Your task to perform on an android device: change your default location settings in chrome Image 0: 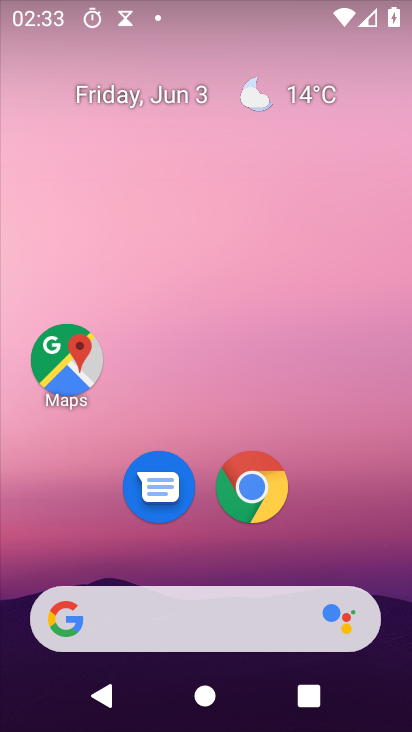
Step 0: click (261, 488)
Your task to perform on an android device: change your default location settings in chrome Image 1: 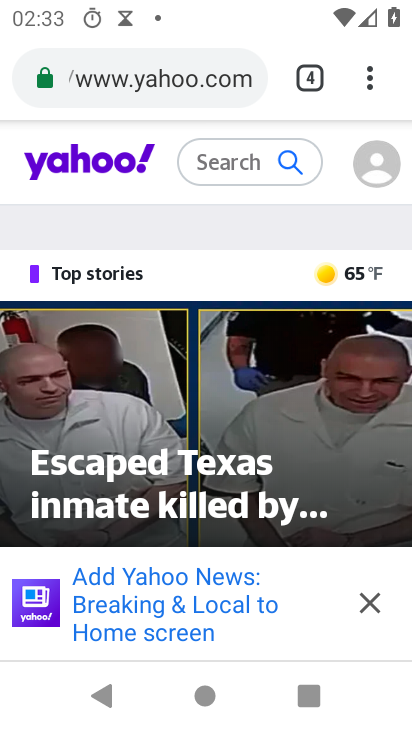
Step 1: click (382, 68)
Your task to perform on an android device: change your default location settings in chrome Image 2: 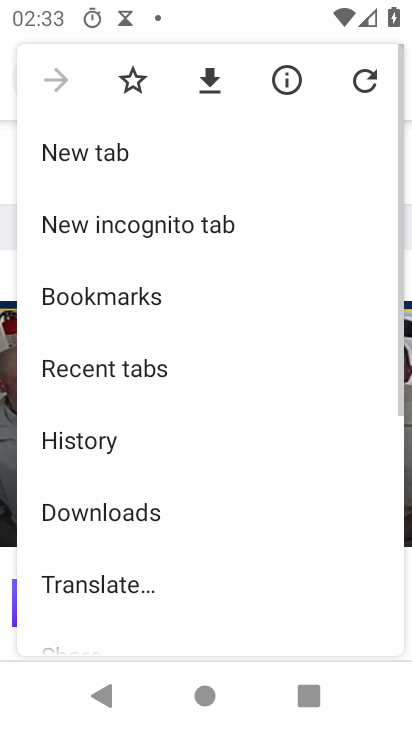
Step 2: drag from (213, 535) to (198, 9)
Your task to perform on an android device: change your default location settings in chrome Image 3: 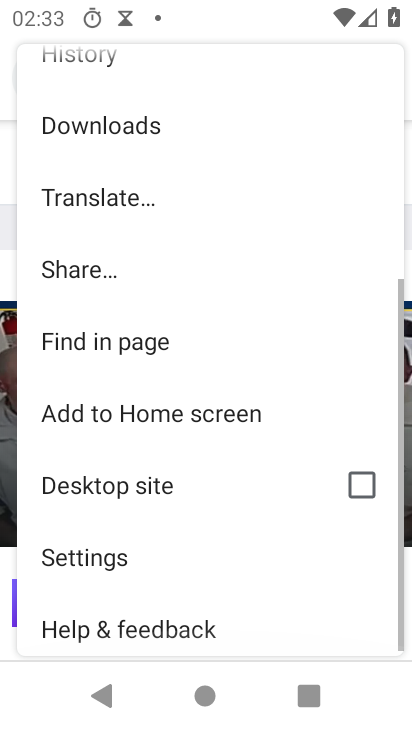
Step 3: drag from (200, 483) to (215, 95)
Your task to perform on an android device: change your default location settings in chrome Image 4: 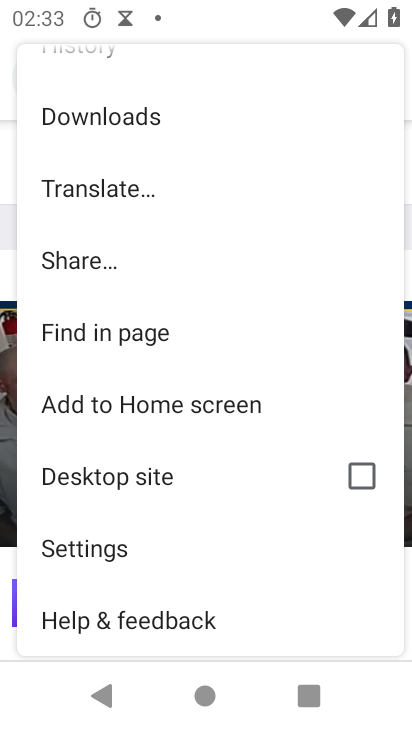
Step 4: click (155, 536)
Your task to perform on an android device: change your default location settings in chrome Image 5: 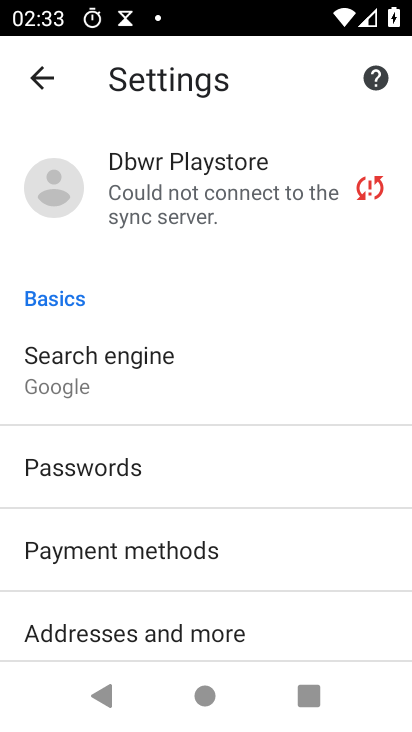
Step 5: drag from (199, 537) to (201, 154)
Your task to perform on an android device: change your default location settings in chrome Image 6: 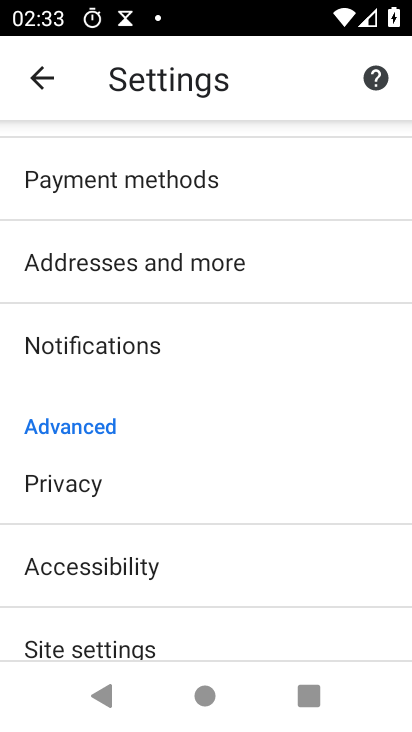
Step 6: click (181, 643)
Your task to perform on an android device: change your default location settings in chrome Image 7: 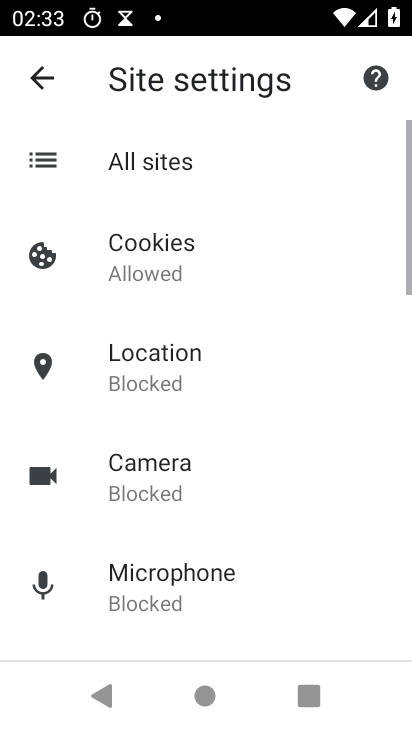
Step 7: click (187, 264)
Your task to perform on an android device: change your default location settings in chrome Image 8: 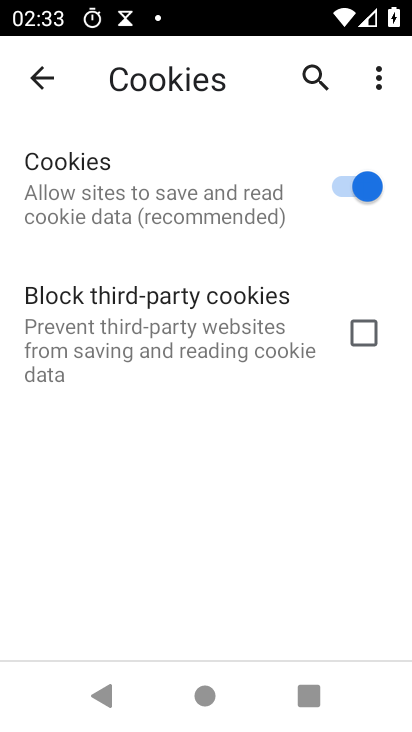
Step 8: click (51, 69)
Your task to perform on an android device: change your default location settings in chrome Image 9: 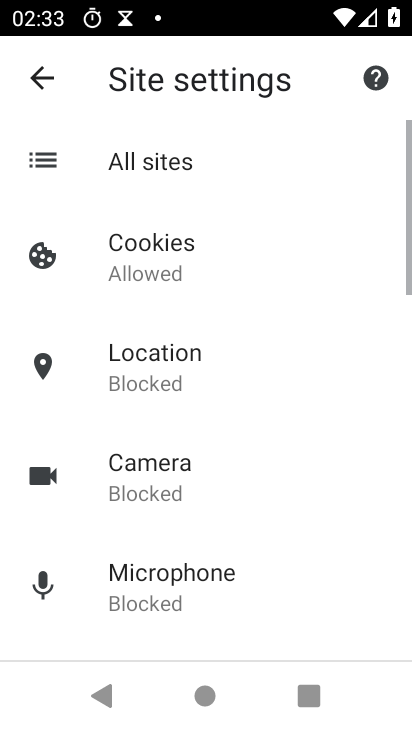
Step 9: click (190, 385)
Your task to perform on an android device: change your default location settings in chrome Image 10: 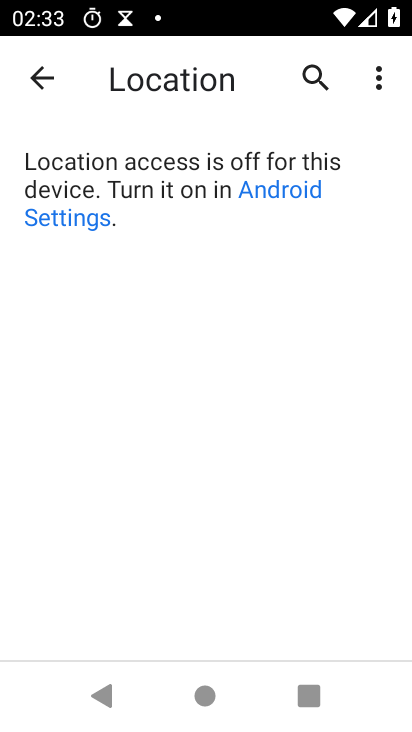
Step 10: click (241, 200)
Your task to perform on an android device: change your default location settings in chrome Image 11: 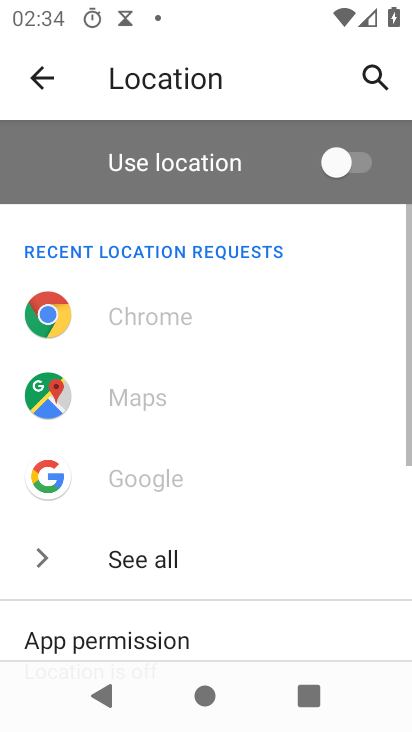
Step 11: click (369, 186)
Your task to perform on an android device: change your default location settings in chrome Image 12: 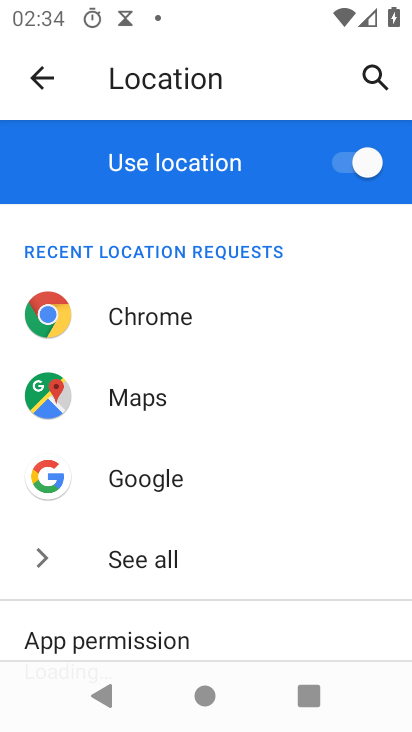
Step 12: task complete